Your task to perform on an android device: empty trash in the gmail app Image 0: 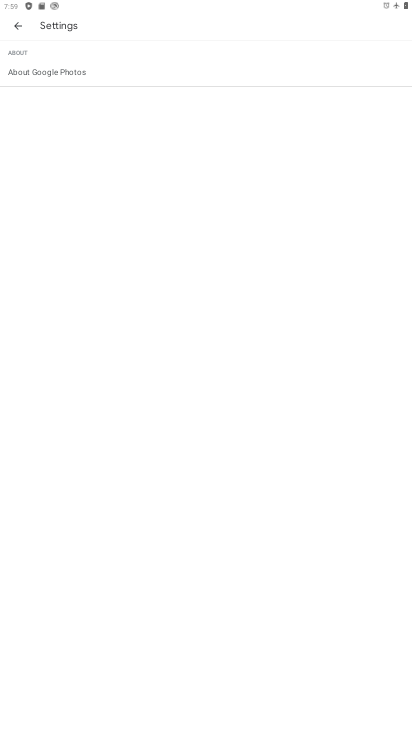
Step 0: press home button
Your task to perform on an android device: empty trash in the gmail app Image 1: 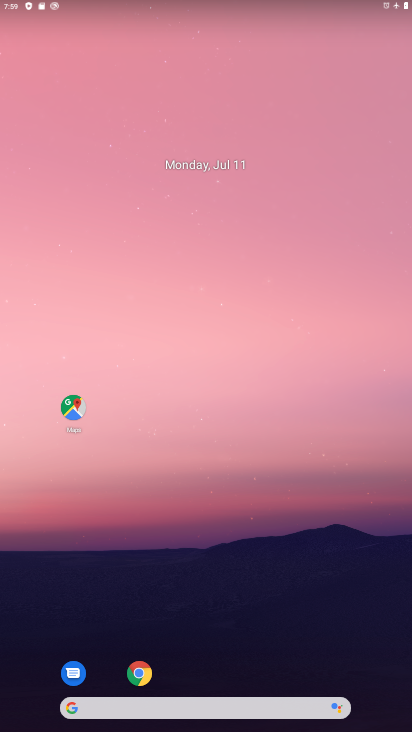
Step 1: drag from (357, 640) to (250, 63)
Your task to perform on an android device: empty trash in the gmail app Image 2: 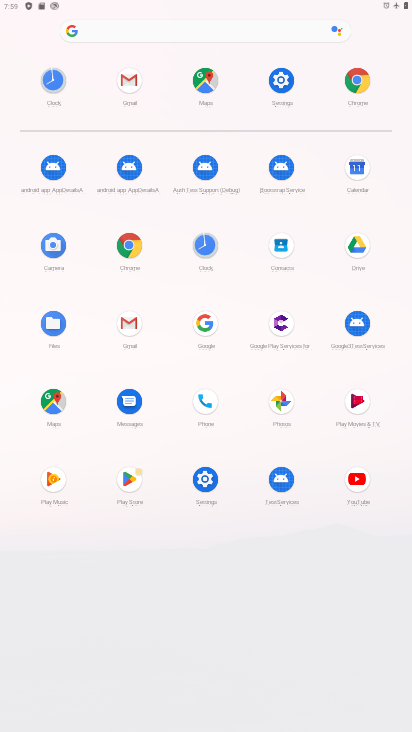
Step 2: click (132, 84)
Your task to perform on an android device: empty trash in the gmail app Image 3: 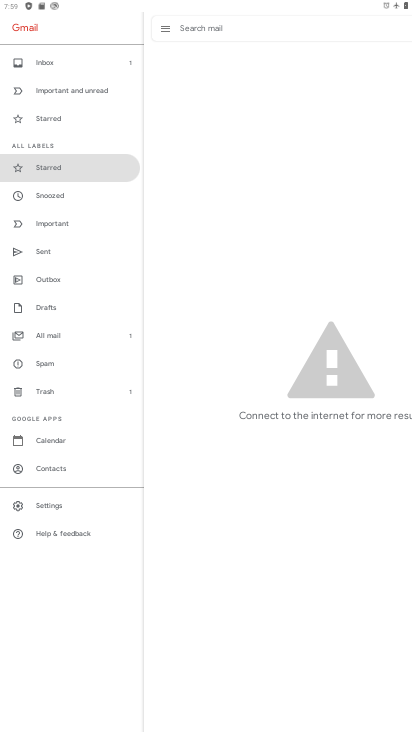
Step 3: click (45, 385)
Your task to perform on an android device: empty trash in the gmail app Image 4: 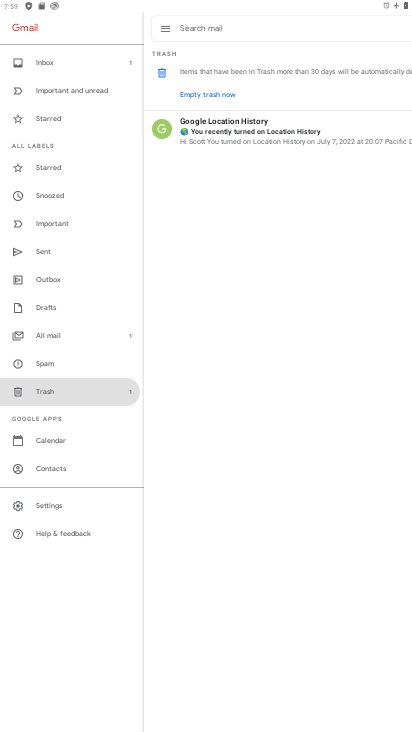
Step 4: drag from (310, 218) to (295, 475)
Your task to perform on an android device: empty trash in the gmail app Image 5: 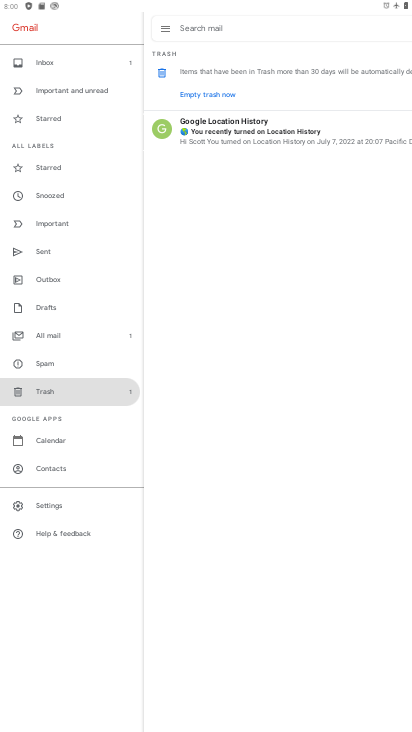
Step 5: click (161, 69)
Your task to perform on an android device: empty trash in the gmail app Image 6: 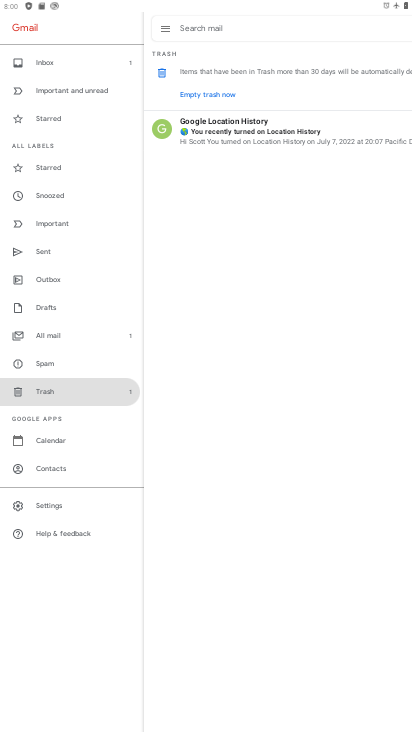
Step 6: click (162, 74)
Your task to perform on an android device: empty trash in the gmail app Image 7: 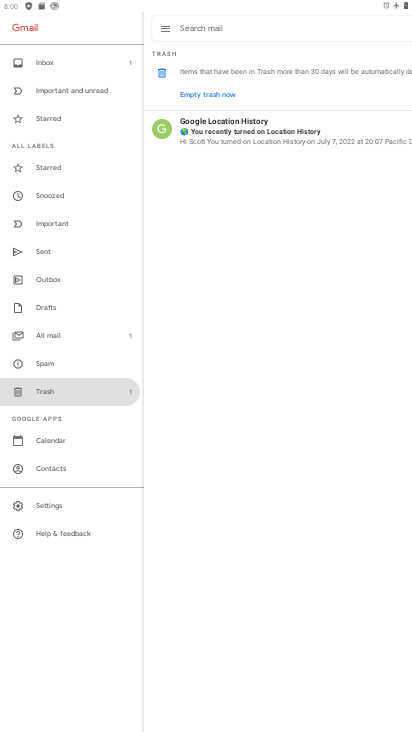
Step 7: click (205, 97)
Your task to perform on an android device: empty trash in the gmail app Image 8: 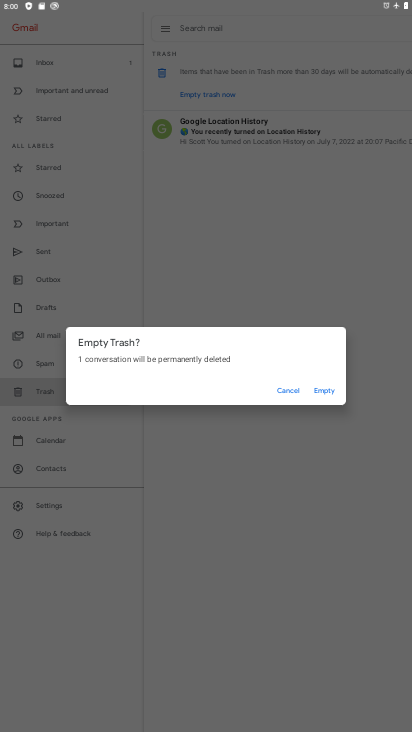
Step 8: click (325, 393)
Your task to perform on an android device: empty trash in the gmail app Image 9: 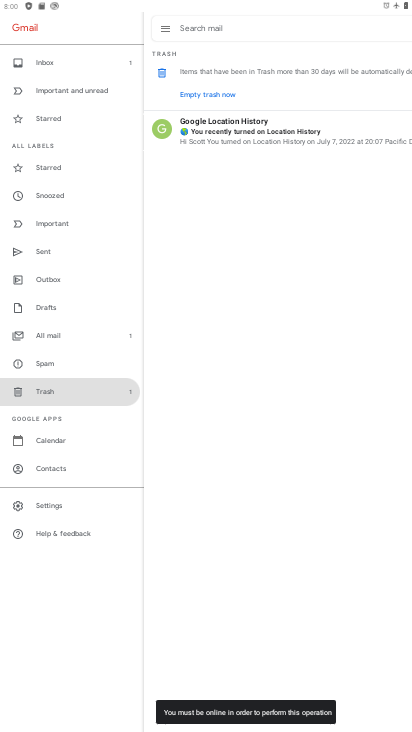
Step 9: drag from (273, 198) to (299, 531)
Your task to perform on an android device: empty trash in the gmail app Image 10: 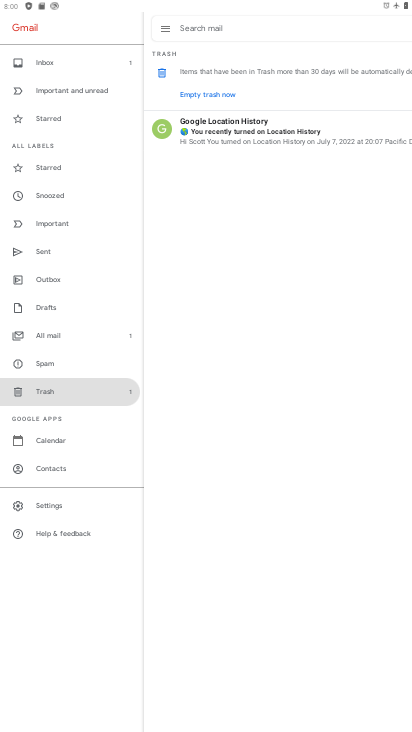
Step 10: click (203, 94)
Your task to perform on an android device: empty trash in the gmail app Image 11: 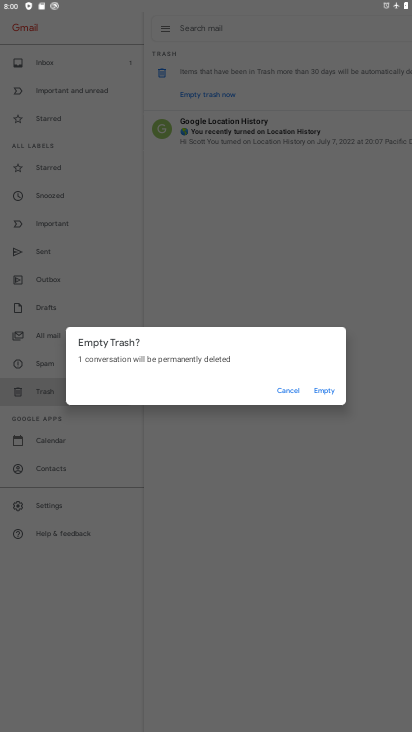
Step 11: click (324, 386)
Your task to perform on an android device: empty trash in the gmail app Image 12: 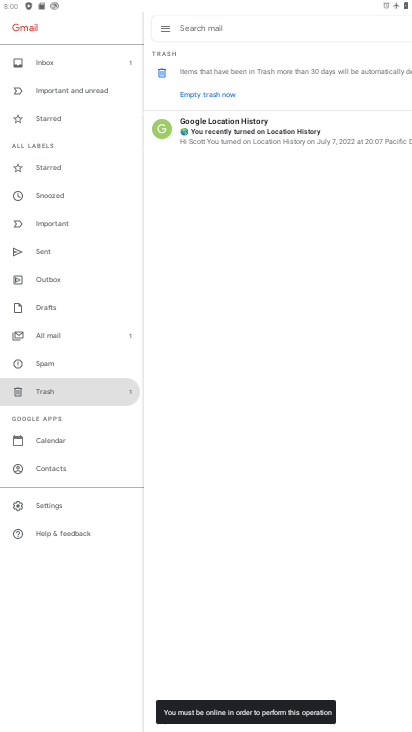
Step 12: task complete